Your task to perform on an android device: turn off wifi Image 0: 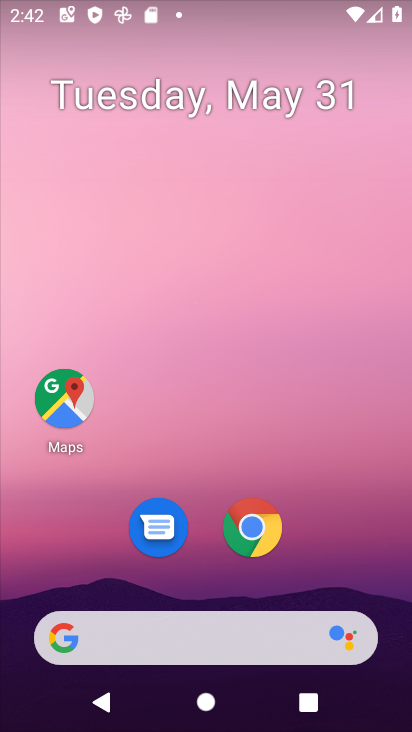
Step 0: drag from (332, 559) to (321, 96)
Your task to perform on an android device: turn off wifi Image 1: 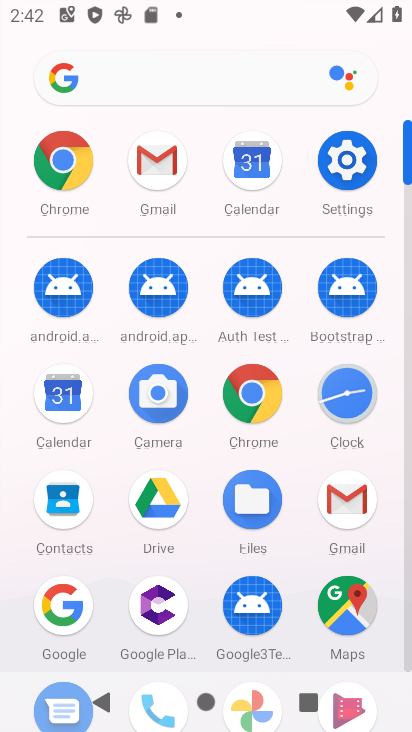
Step 1: click (347, 178)
Your task to perform on an android device: turn off wifi Image 2: 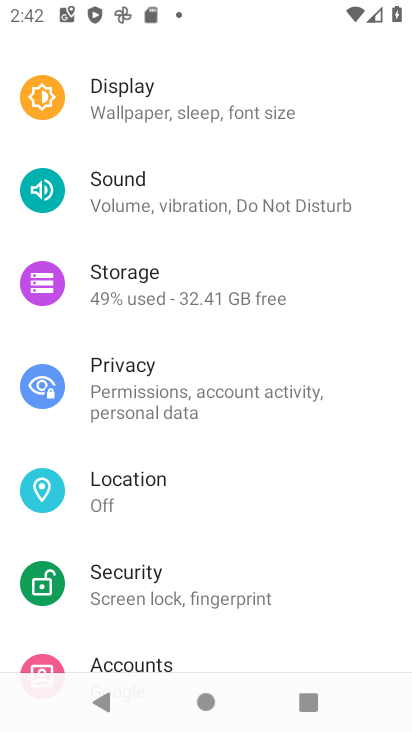
Step 2: drag from (152, 194) to (229, 609)
Your task to perform on an android device: turn off wifi Image 3: 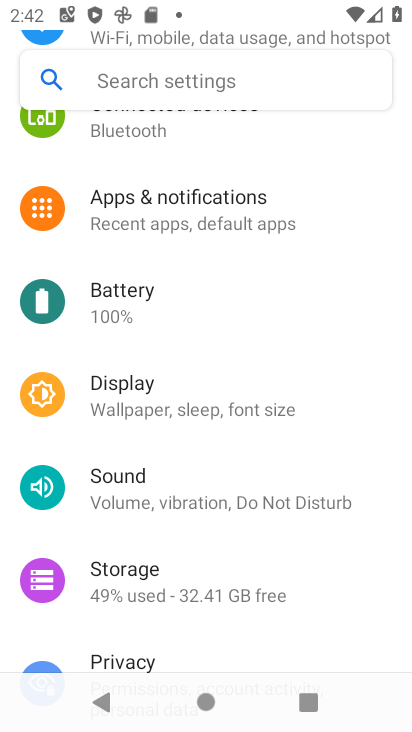
Step 3: drag from (261, 248) to (271, 609)
Your task to perform on an android device: turn off wifi Image 4: 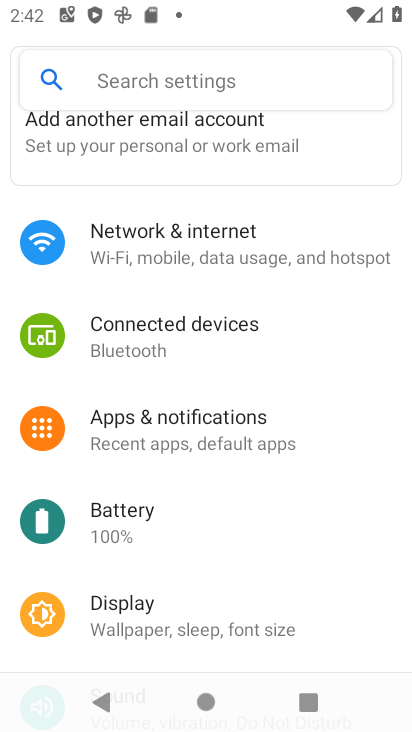
Step 4: click (248, 234)
Your task to perform on an android device: turn off wifi Image 5: 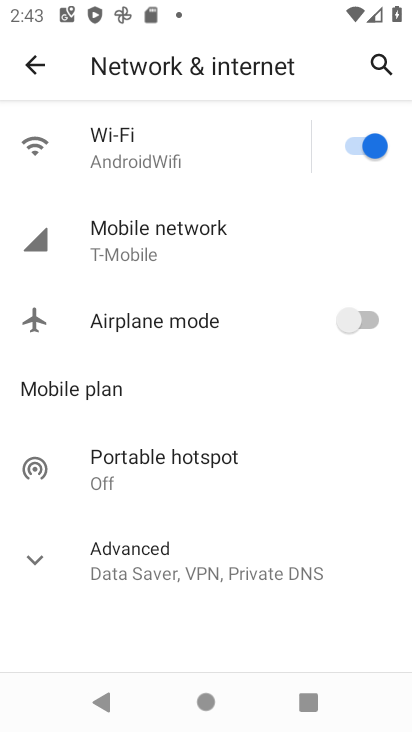
Step 5: click (350, 142)
Your task to perform on an android device: turn off wifi Image 6: 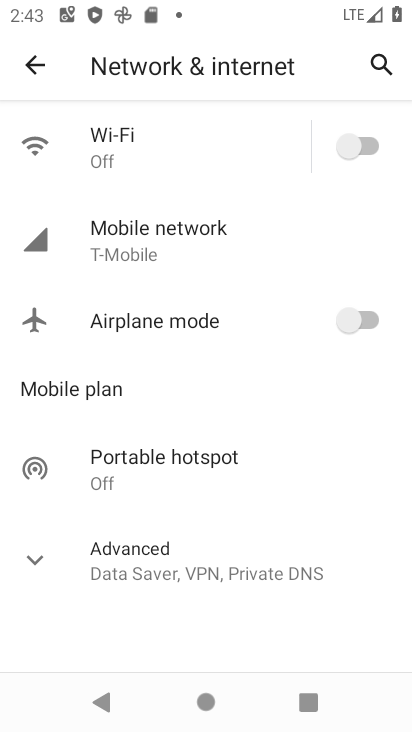
Step 6: task complete